Your task to perform on an android device: set an alarm Image 0: 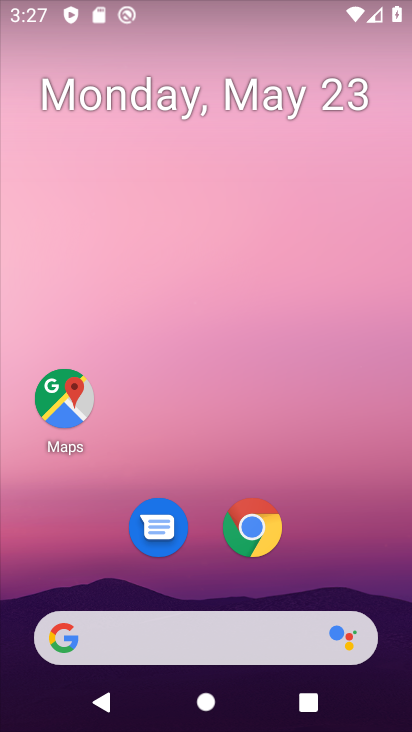
Step 0: drag from (298, 576) to (286, 80)
Your task to perform on an android device: set an alarm Image 1: 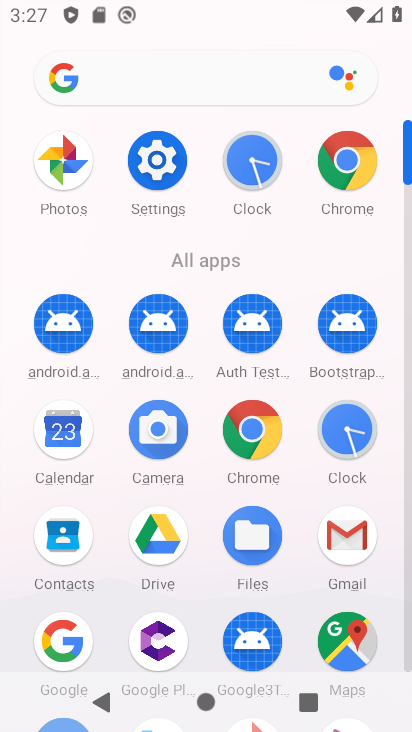
Step 1: click (358, 442)
Your task to perform on an android device: set an alarm Image 2: 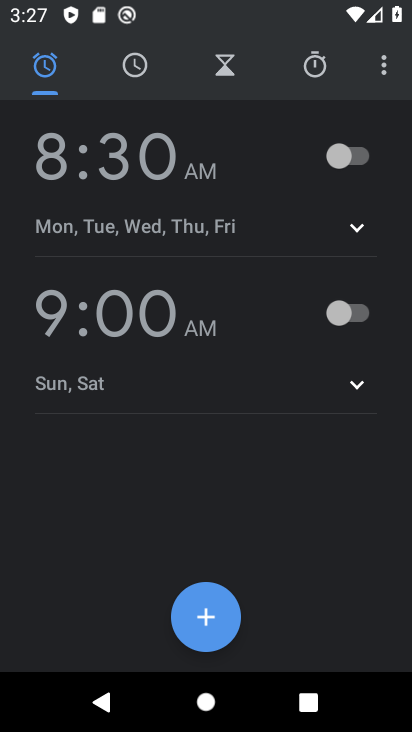
Step 2: click (332, 160)
Your task to perform on an android device: set an alarm Image 3: 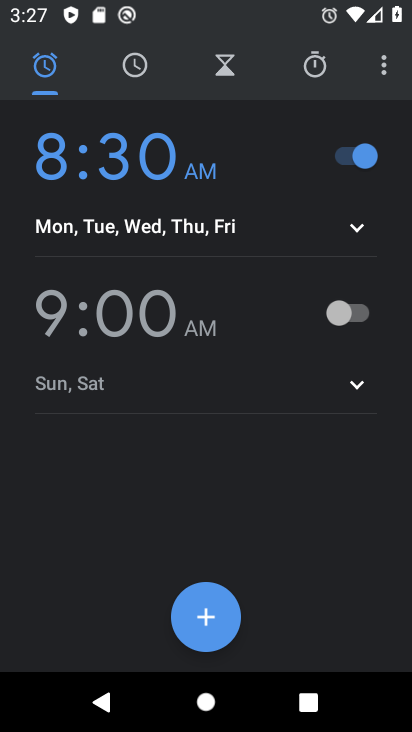
Step 3: task complete